Your task to perform on an android device: Find coffee shops on Maps Image 0: 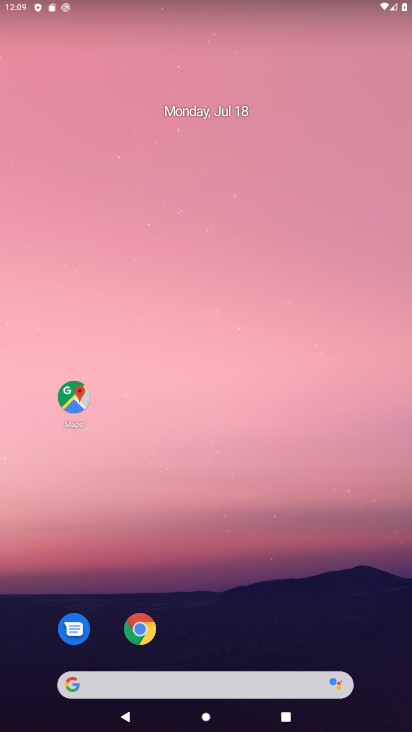
Step 0: drag from (239, 619) to (240, 190)
Your task to perform on an android device: Find coffee shops on Maps Image 1: 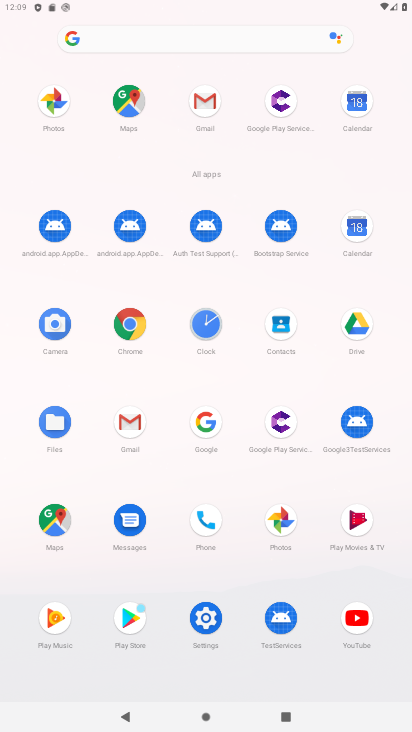
Step 1: click (54, 527)
Your task to perform on an android device: Find coffee shops on Maps Image 2: 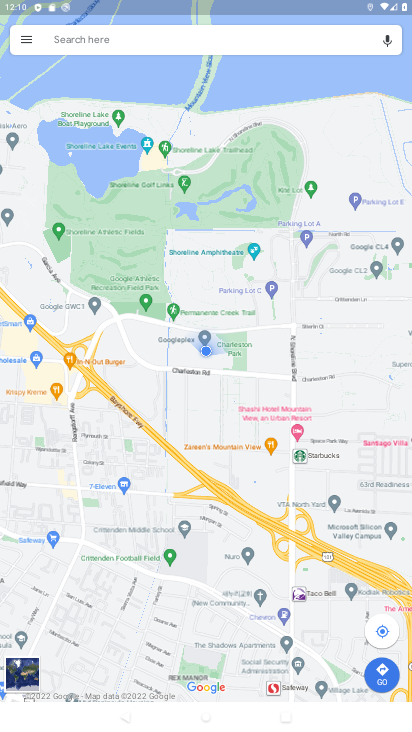
Step 2: click (113, 42)
Your task to perform on an android device: Find coffee shops on Maps Image 3: 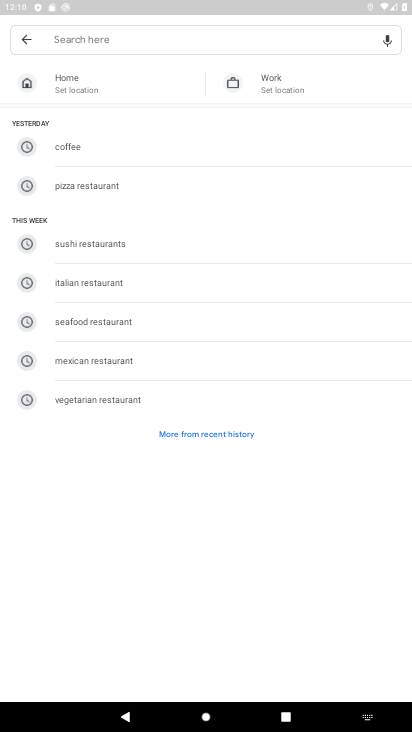
Step 3: click (76, 146)
Your task to perform on an android device: Find coffee shops on Maps Image 4: 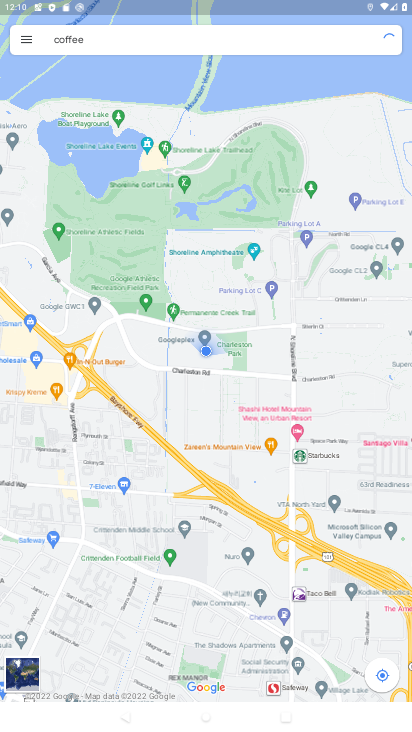
Step 4: task complete